Your task to perform on an android device: Search for Mexican restaurants on Maps Image 0: 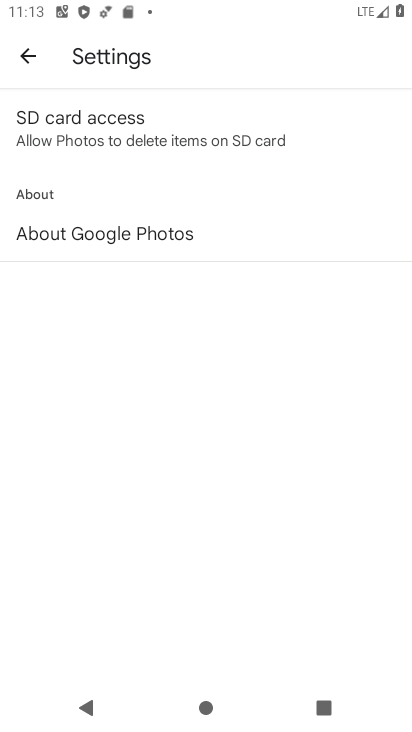
Step 0: press home button
Your task to perform on an android device: Search for Mexican restaurants on Maps Image 1: 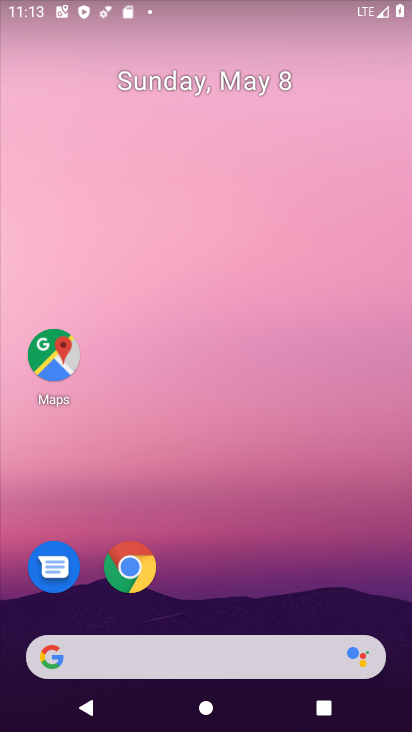
Step 1: click (49, 355)
Your task to perform on an android device: Search for Mexican restaurants on Maps Image 2: 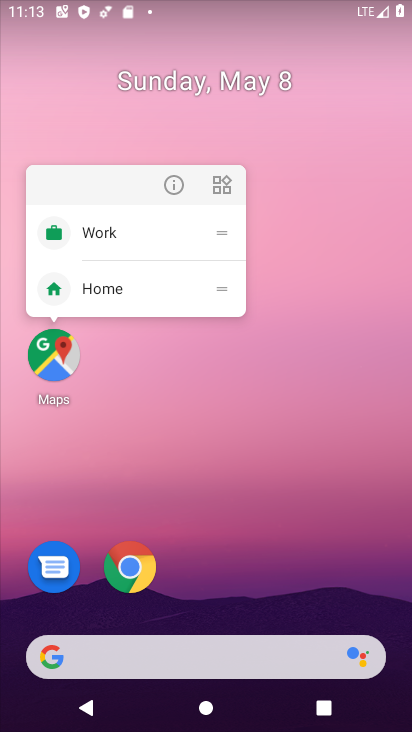
Step 2: click (58, 352)
Your task to perform on an android device: Search for Mexican restaurants on Maps Image 3: 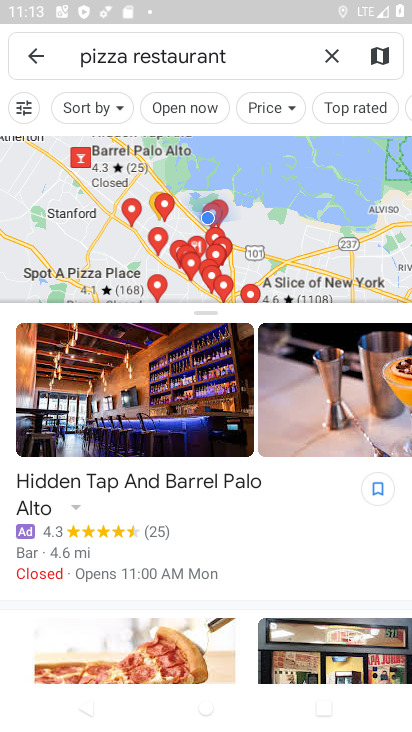
Step 3: click (327, 56)
Your task to perform on an android device: Search for Mexican restaurants on Maps Image 4: 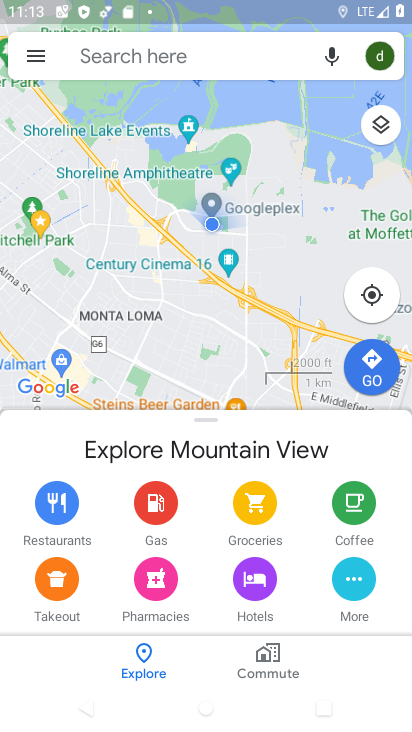
Step 4: click (153, 47)
Your task to perform on an android device: Search for Mexican restaurants on Maps Image 5: 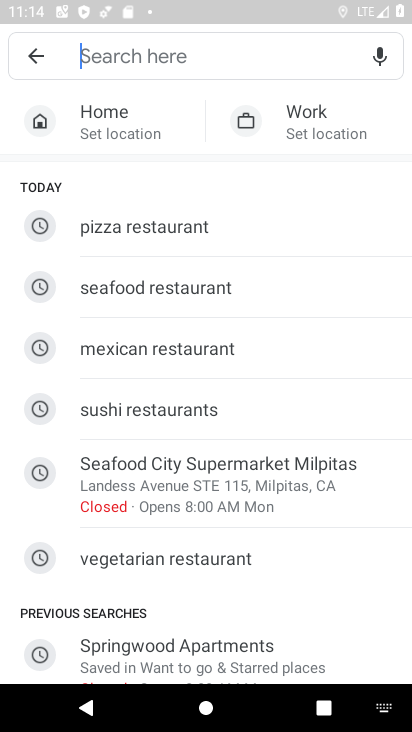
Step 5: click (118, 346)
Your task to perform on an android device: Search for Mexican restaurants on Maps Image 6: 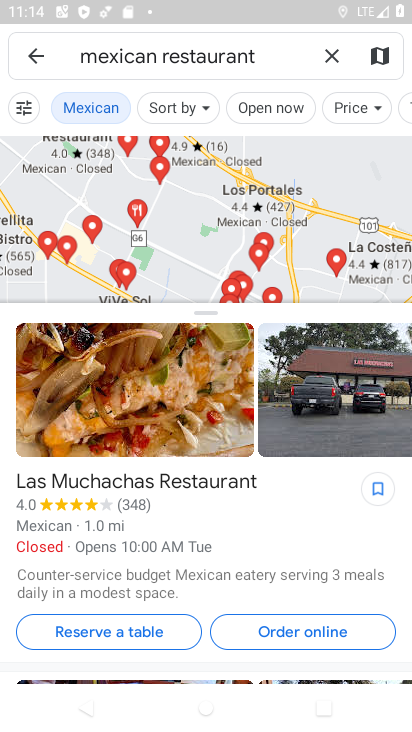
Step 6: drag from (140, 542) to (196, 233)
Your task to perform on an android device: Search for Mexican restaurants on Maps Image 7: 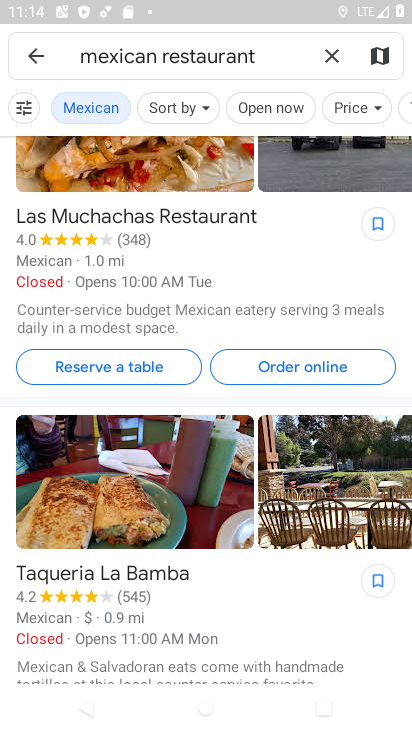
Step 7: drag from (194, 591) to (220, 383)
Your task to perform on an android device: Search for Mexican restaurants on Maps Image 8: 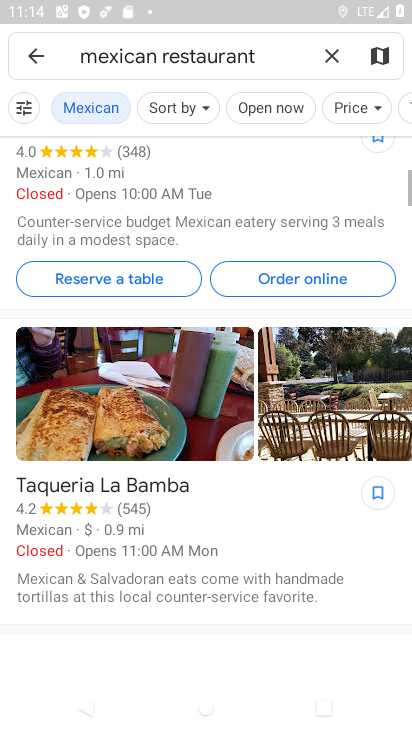
Step 8: click (231, 196)
Your task to perform on an android device: Search for Mexican restaurants on Maps Image 9: 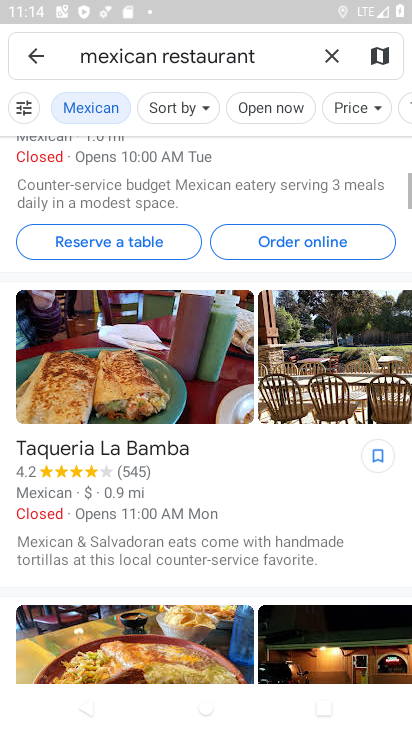
Step 9: task complete